Your task to perform on an android device: check out phone information Image 0: 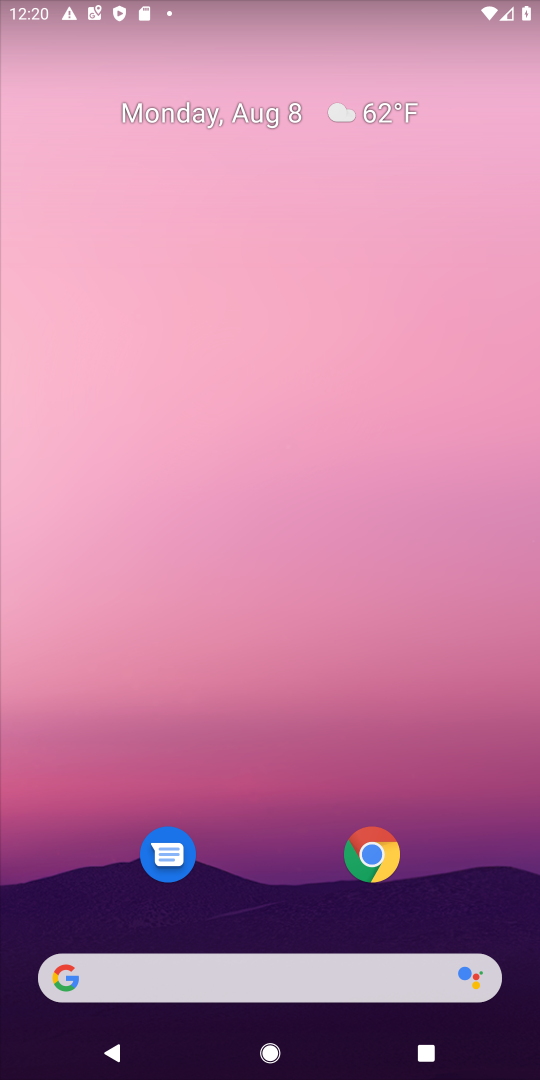
Step 0: press home button
Your task to perform on an android device: check out phone information Image 1: 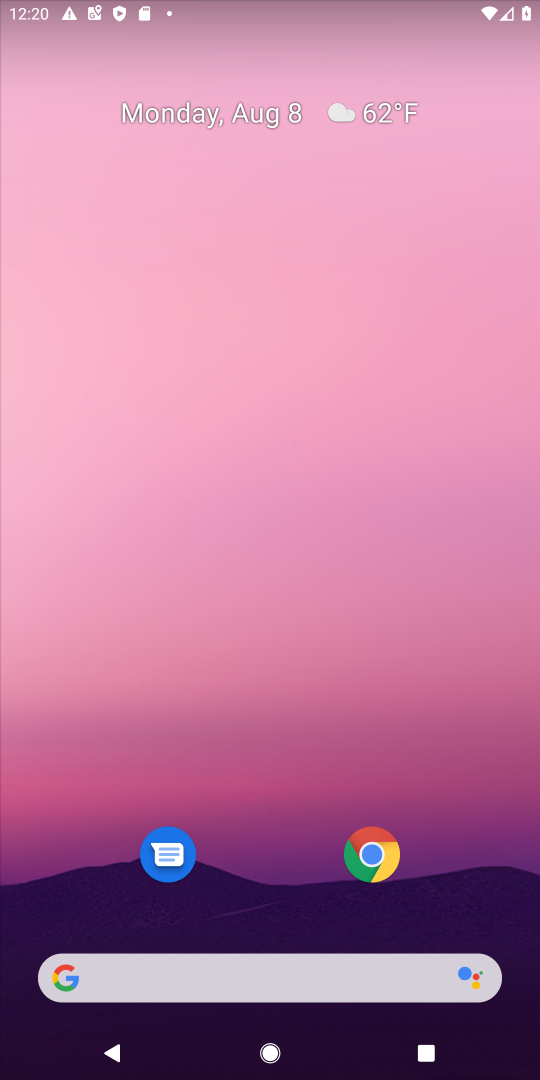
Step 1: drag from (267, 923) to (320, 3)
Your task to perform on an android device: check out phone information Image 2: 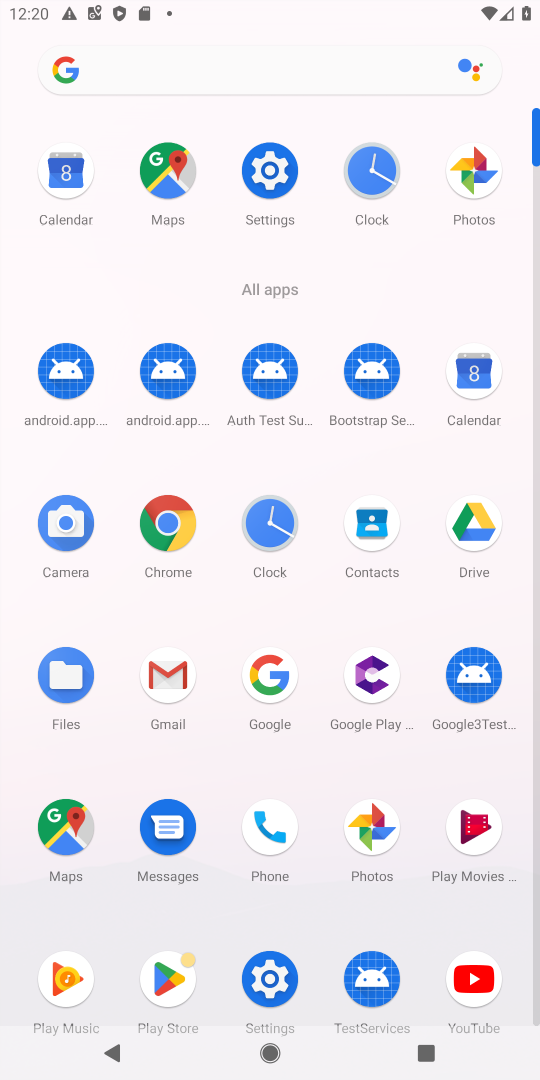
Step 2: click (264, 172)
Your task to perform on an android device: check out phone information Image 3: 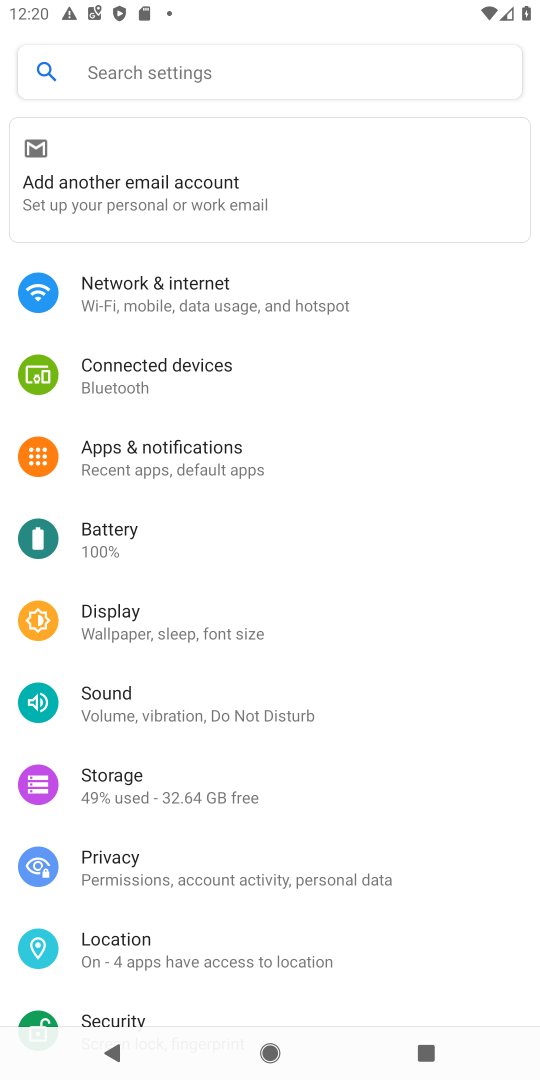
Step 3: drag from (406, 917) to (460, 32)
Your task to perform on an android device: check out phone information Image 4: 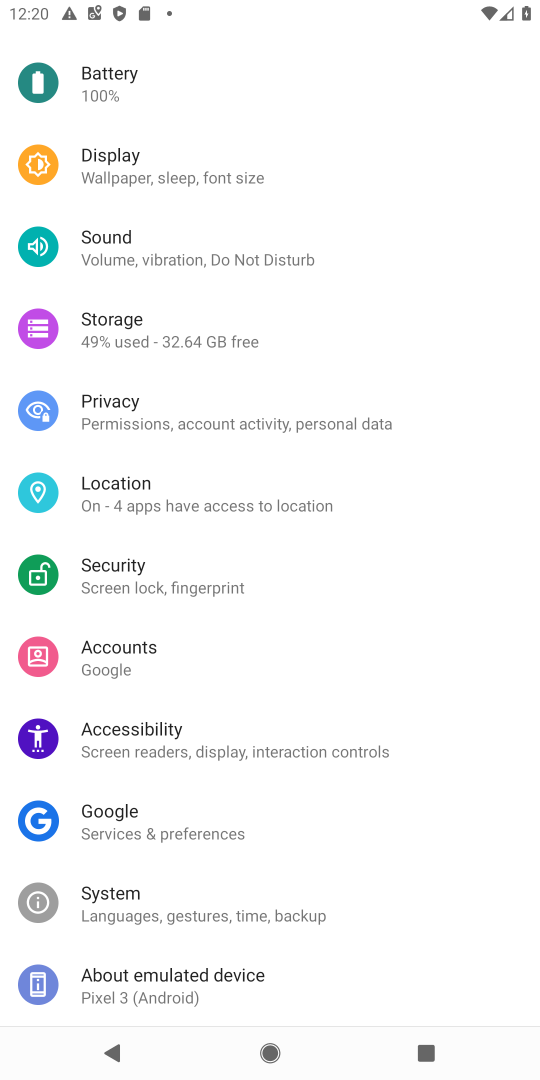
Step 4: click (143, 991)
Your task to perform on an android device: check out phone information Image 5: 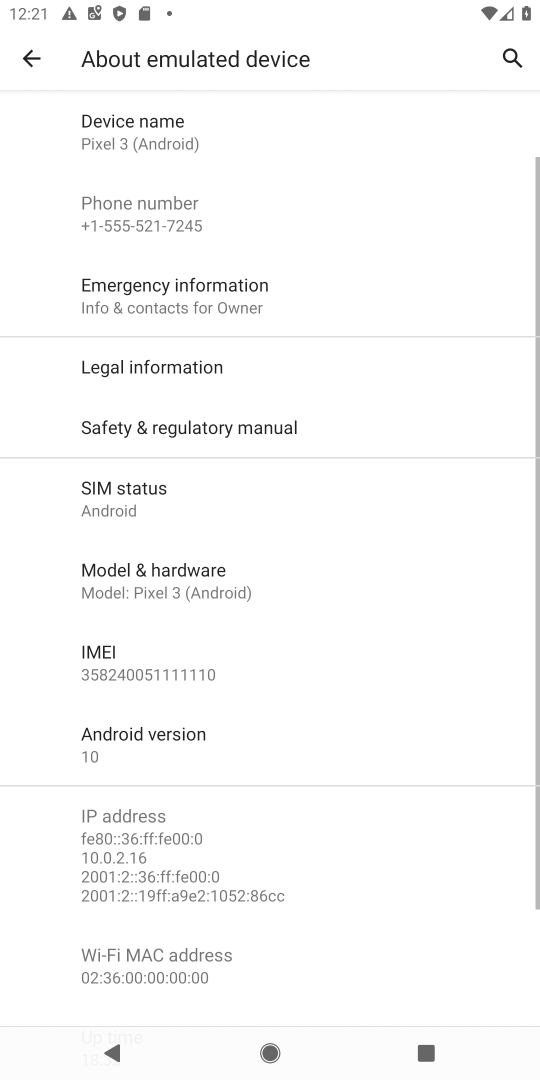
Step 5: task complete